Your task to perform on an android device: Open wifi settings Image 0: 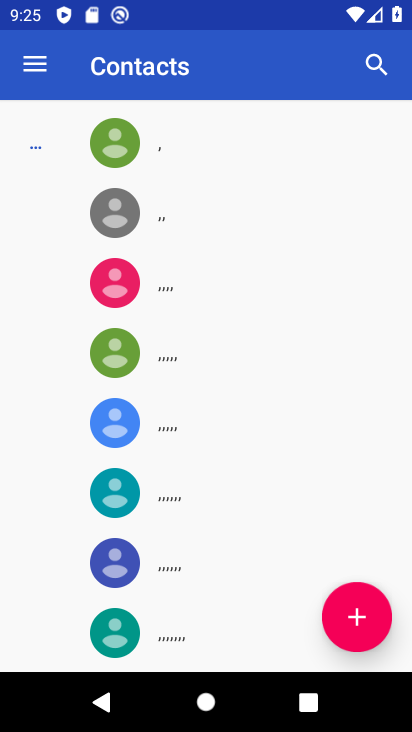
Step 0: task complete